Your task to perform on an android device: Do I have any events today? Image 0: 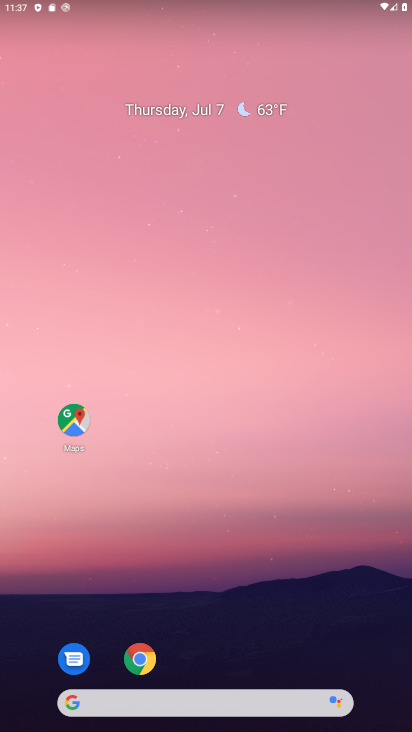
Step 0: drag from (214, 660) to (253, 4)
Your task to perform on an android device: Do I have any events today? Image 1: 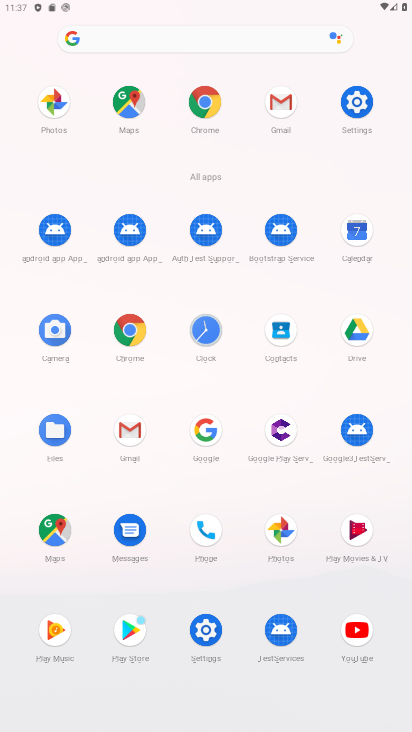
Step 1: click (354, 241)
Your task to perform on an android device: Do I have any events today? Image 2: 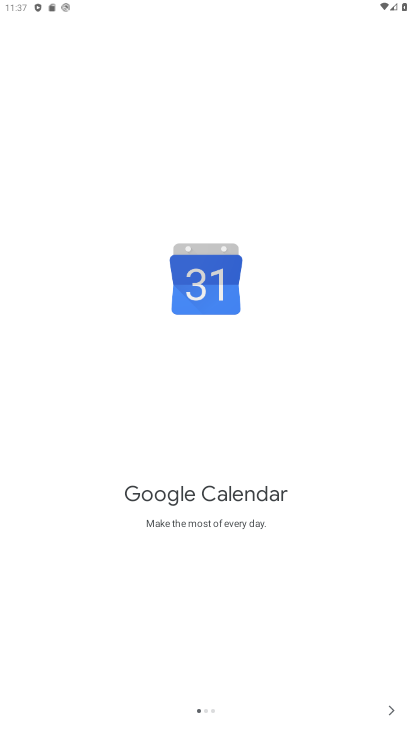
Step 2: click (390, 701)
Your task to perform on an android device: Do I have any events today? Image 3: 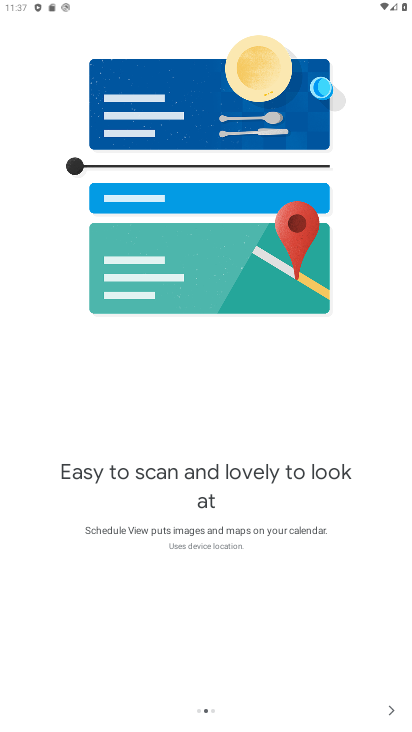
Step 3: click (383, 703)
Your task to perform on an android device: Do I have any events today? Image 4: 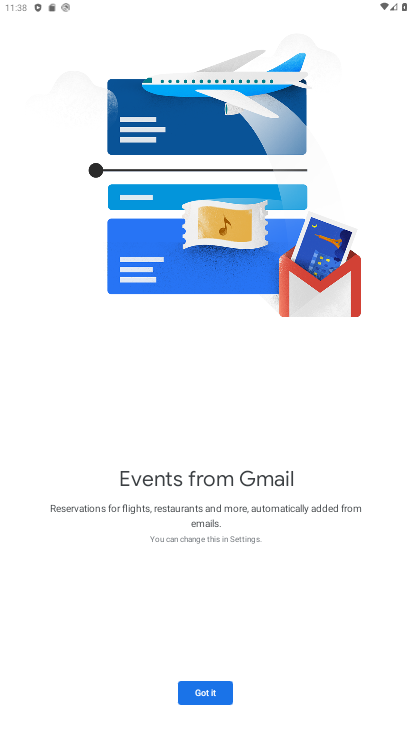
Step 4: click (195, 686)
Your task to perform on an android device: Do I have any events today? Image 5: 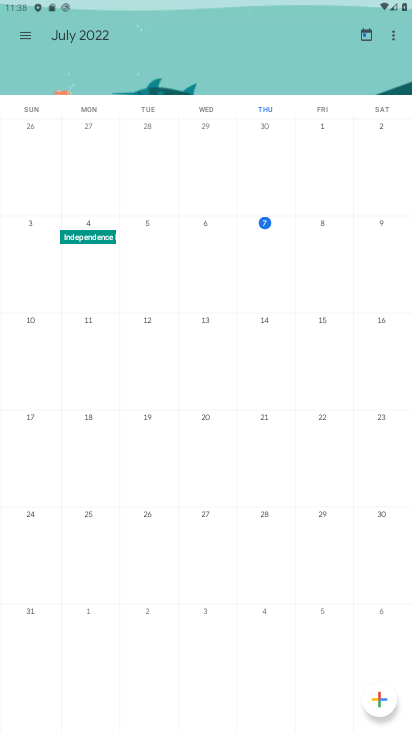
Step 5: click (20, 30)
Your task to perform on an android device: Do I have any events today? Image 6: 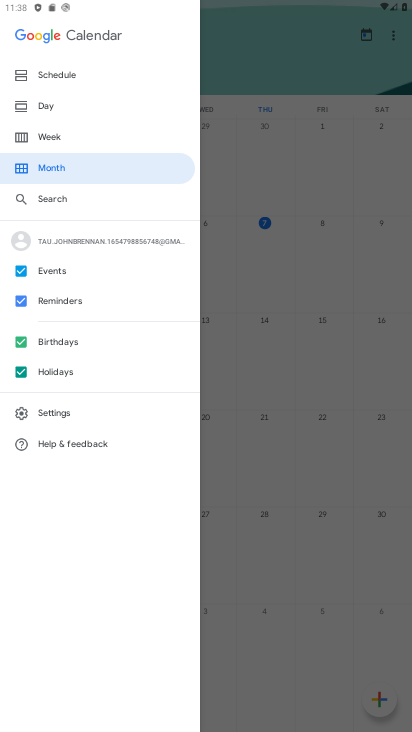
Step 6: click (67, 296)
Your task to perform on an android device: Do I have any events today? Image 7: 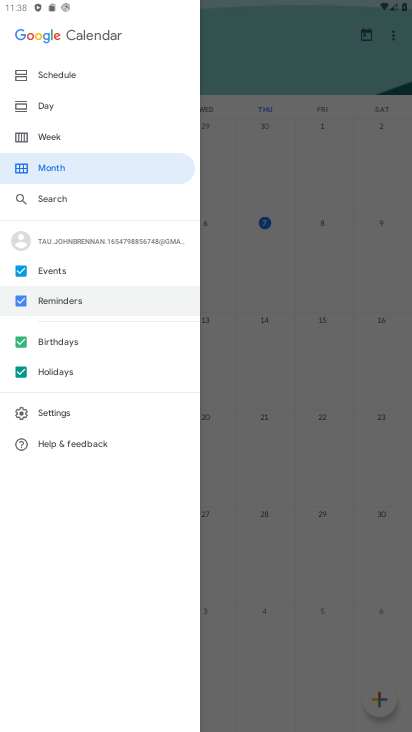
Step 7: click (56, 338)
Your task to perform on an android device: Do I have any events today? Image 8: 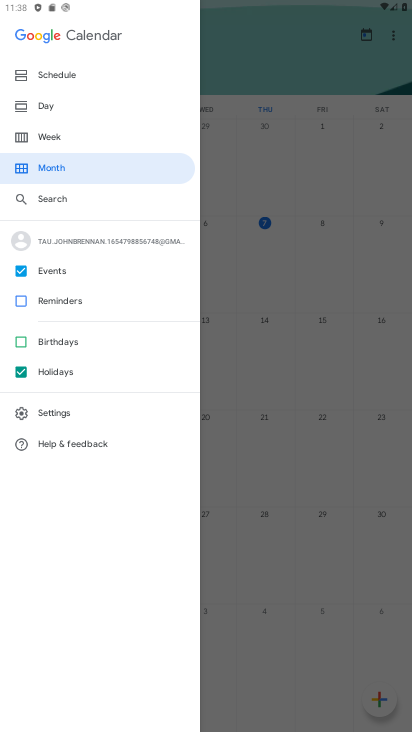
Step 8: click (50, 373)
Your task to perform on an android device: Do I have any events today? Image 9: 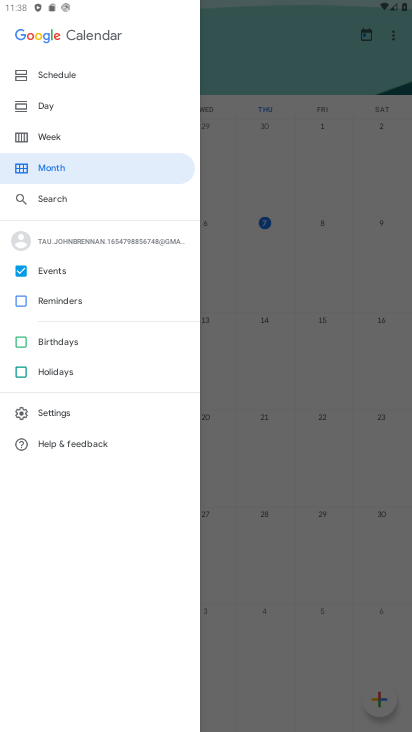
Step 9: click (48, 110)
Your task to perform on an android device: Do I have any events today? Image 10: 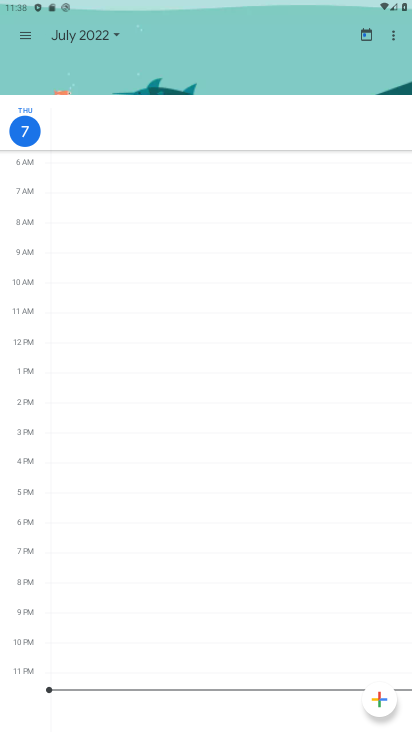
Step 10: task complete